Your task to perform on an android device: find which apps use the phone's location Image 0: 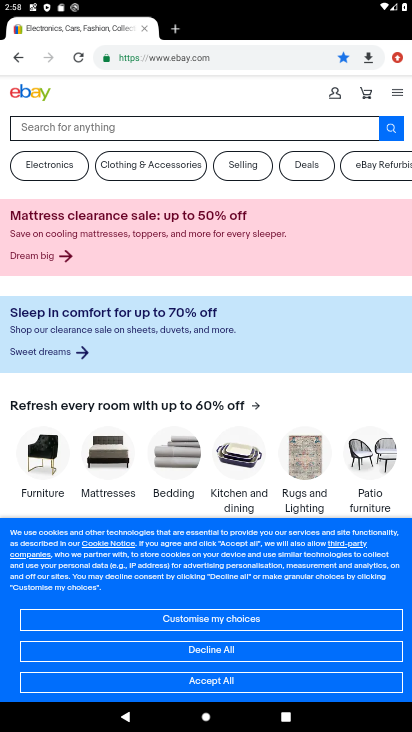
Step 0: press home button
Your task to perform on an android device: find which apps use the phone's location Image 1: 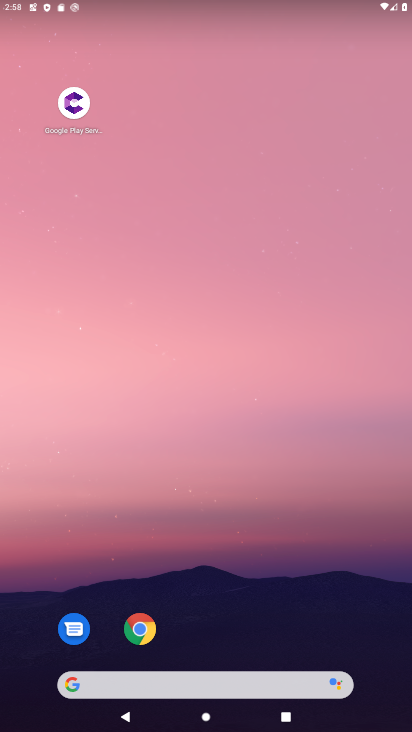
Step 1: drag from (223, 661) to (313, 240)
Your task to perform on an android device: find which apps use the phone's location Image 2: 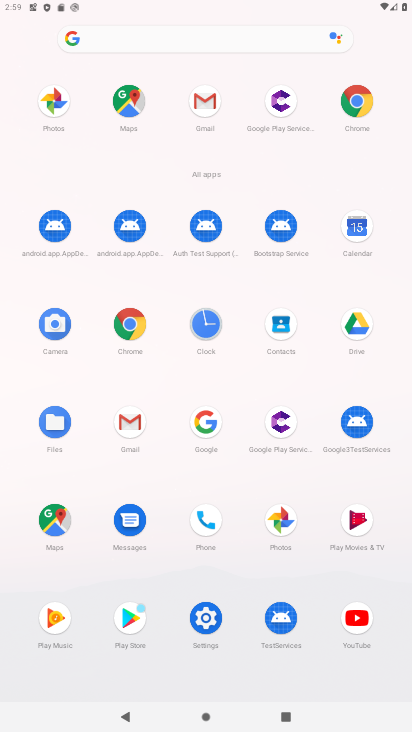
Step 2: click (210, 625)
Your task to perform on an android device: find which apps use the phone's location Image 3: 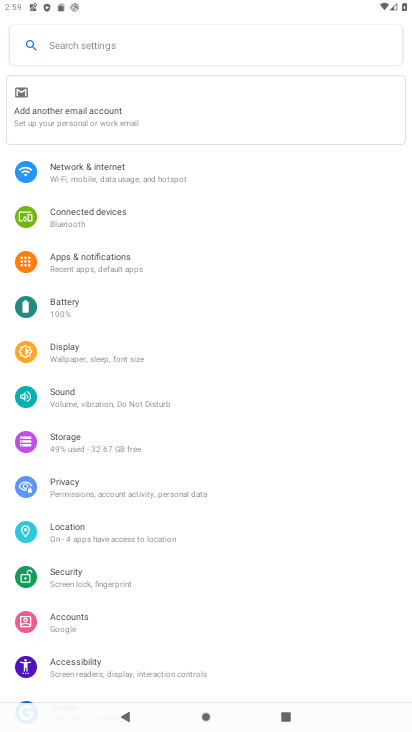
Step 3: click (97, 535)
Your task to perform on an android device: find which apps use the phone's location Image 4: 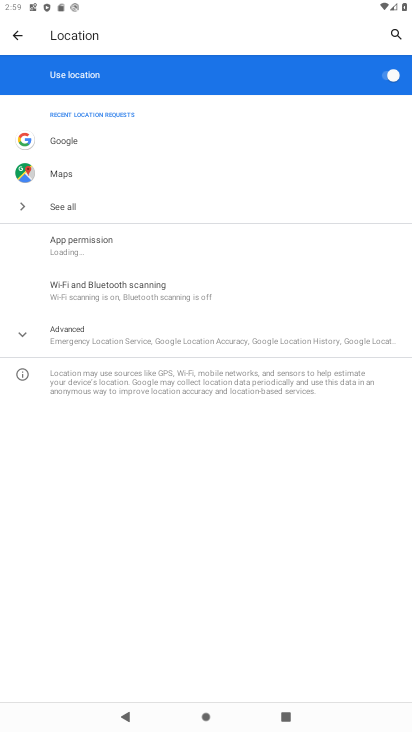
Step 4: click (133, 258)
Your task to perform on an android device: find which apps use the phone's location Image 5: 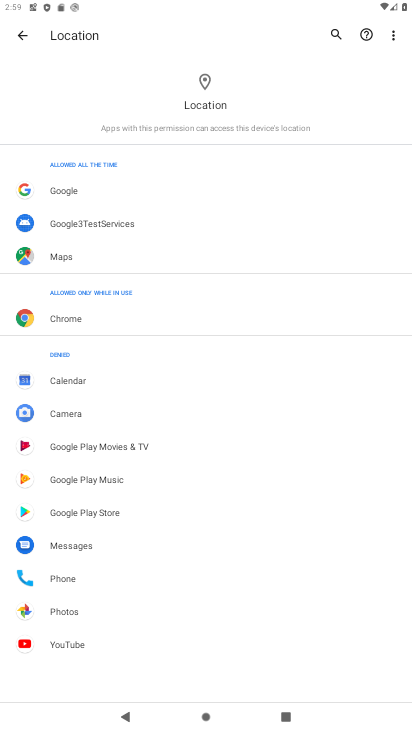
Step 5: task complete